Your task to perform on an android device: visit the assistant section in the google photos Image 0: 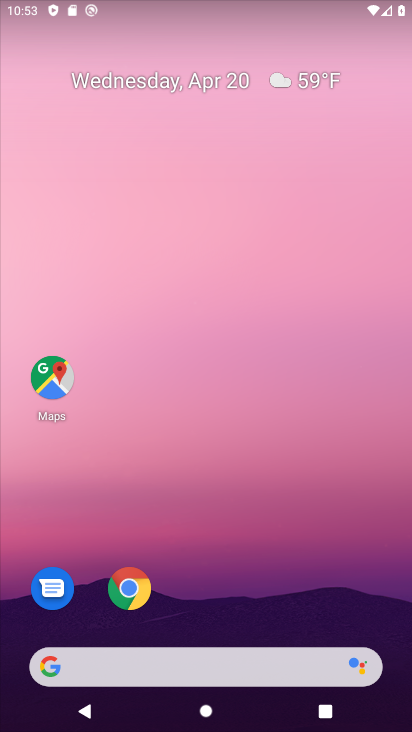
Step 0: drag from (212, 724) to (212, 36)
Your task to perform on an android device: visit the assistant section in the google photos Image 1: 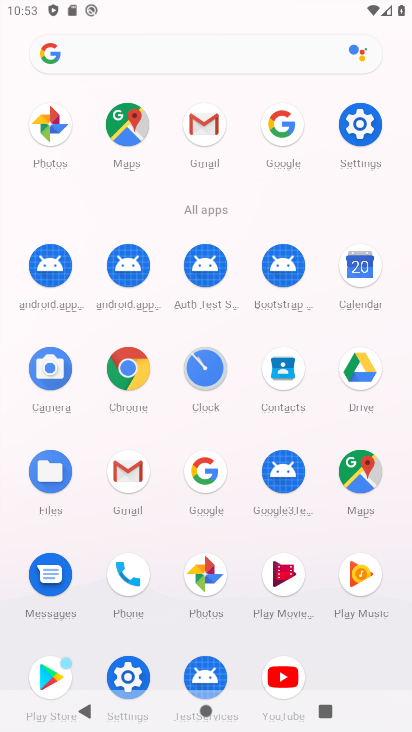
Step 1: click (211, 578)
Your task to perform on an android device: visit the assistant section in the google photos Image 2: 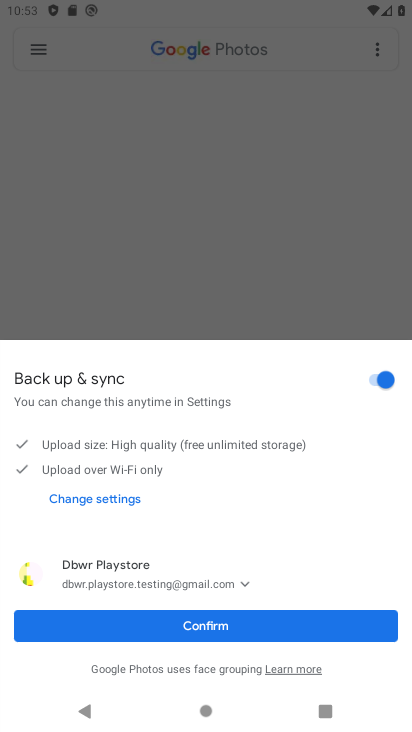
Step 2: click (229, 630)
Your task to perform on an android device: visit the assistant section in the google photos Image 3: 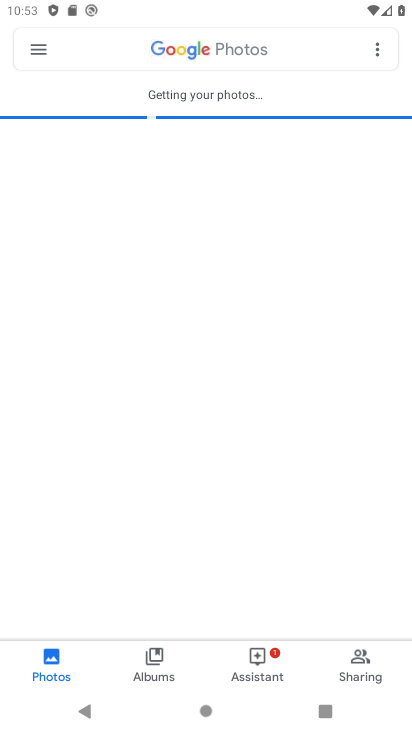
Step 3: click (263, 662)
Your task to perform on an android device: visit the assistant section in the google photos Image 4: 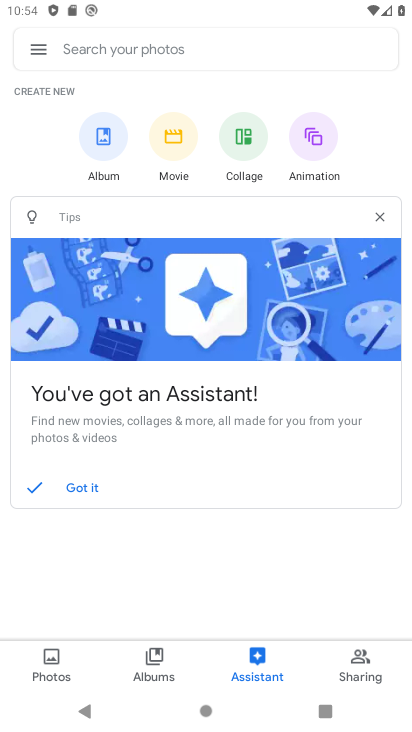
Step 4: task complete